Your task to perform on an android device: open a bookmark in the chrome app Image 0: 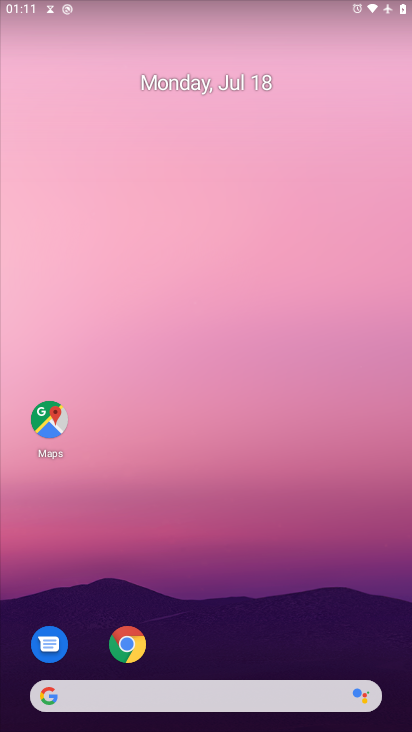
Step 0: press home button
Your task to perform on an android device: open a bookmark in the chrome app Image 1: 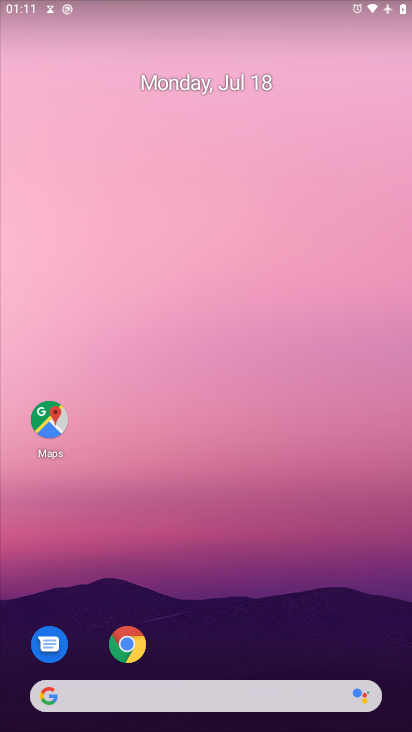
Step 1: drag from (261, 641) to (237, 49)
Your task to perform on an android device: open a bookmark in the chrome app Image 2: 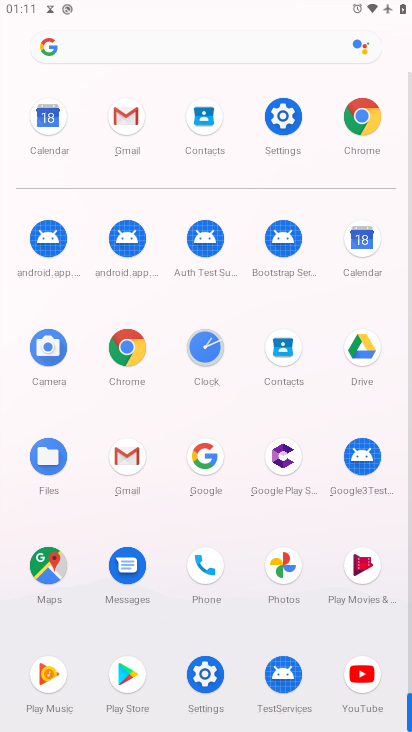
Step 2: click (123, 355)
Your task to perform on an android device: open a bookmark in the chrome app Image 3: 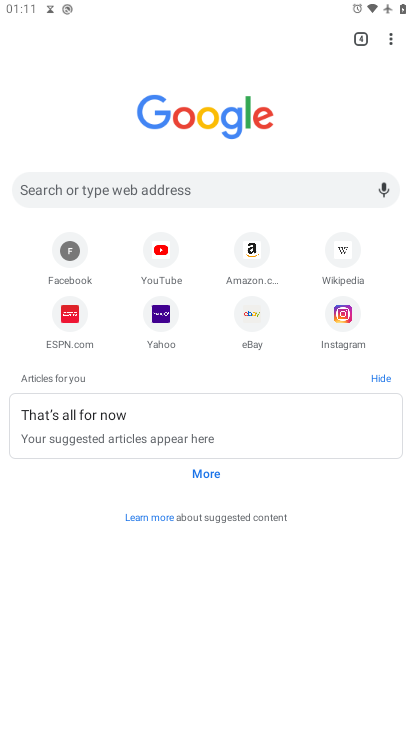
Step 3: drag from (391, 32) to (271, 148)
Your task to perform on an android device: open a bookmark in the chrome app Image 4: 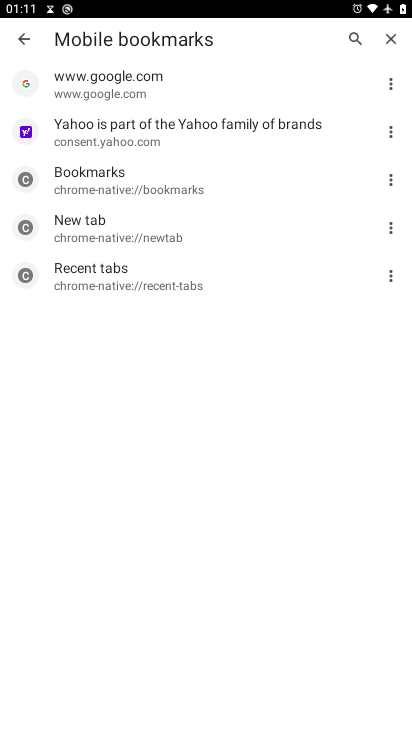
Step 4: click (91, 125)
Your task to perform on an android device: open a bookmark in the chrome app Image 5: 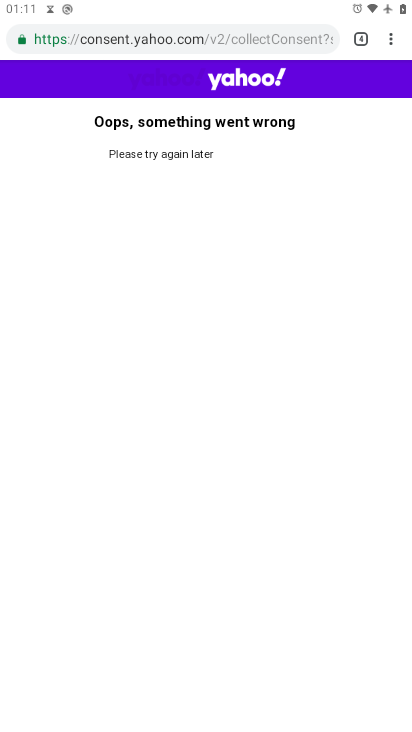
Step 5: task complete